Your task to perform on an android device: Do I have any events this weekend? Image 0: 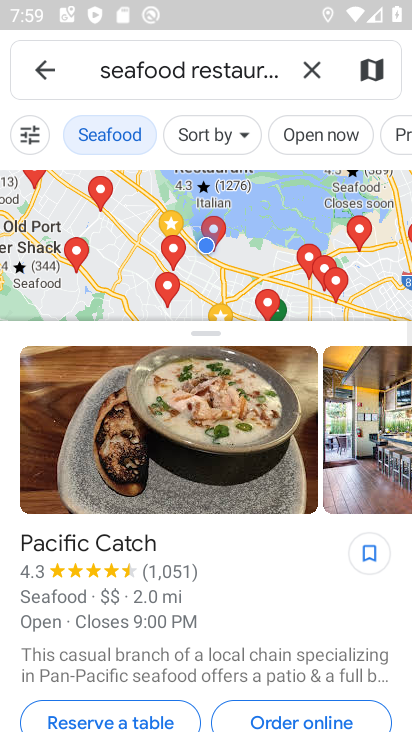
Step 0: press home button
Your task to perform on an android device: Do I have any events this weekend? Image 1: 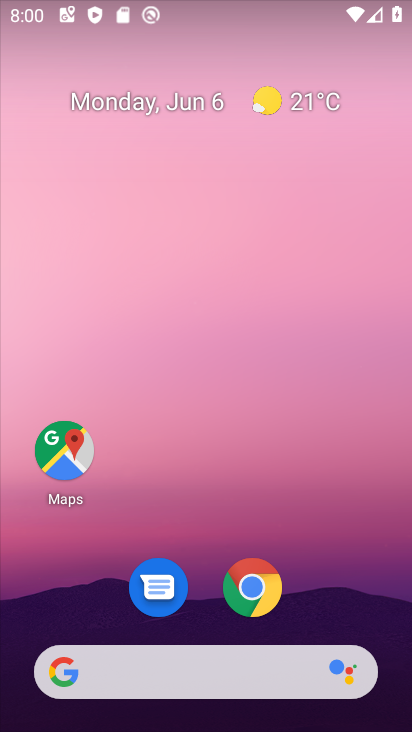
Step 1: drag from (255, 715) to (187, 84)
Your task to perform on an android device: Do I have any events this weekend? Image 2: 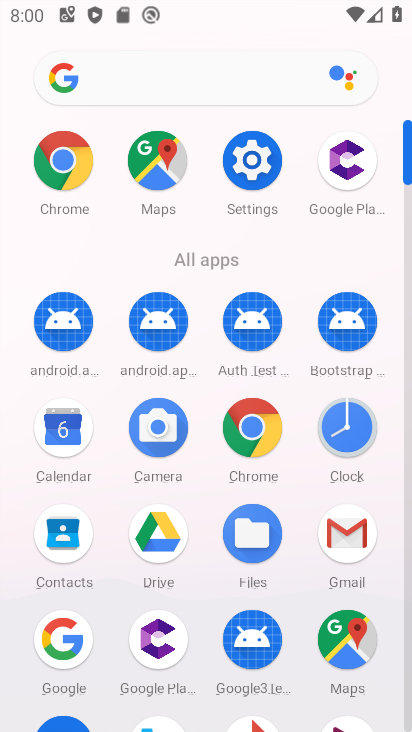
Step 2: click (87, 433)
Your task to perform on an android device: Do I have any events this weekend? Image 3: 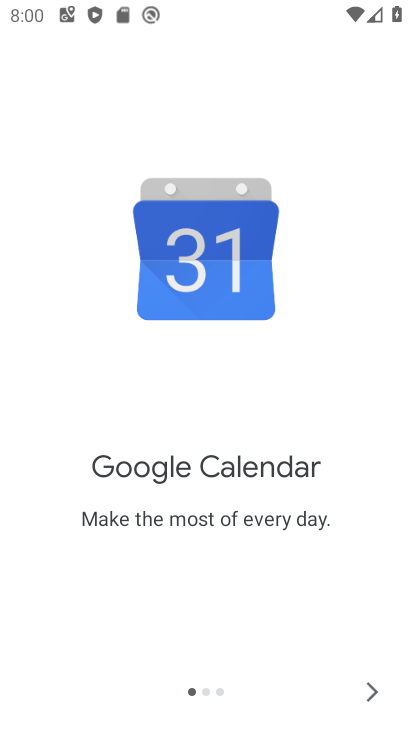
Step 3: click (372, 683)
Your task to perform on an android device: Do I have any events this weekend? Image 4: 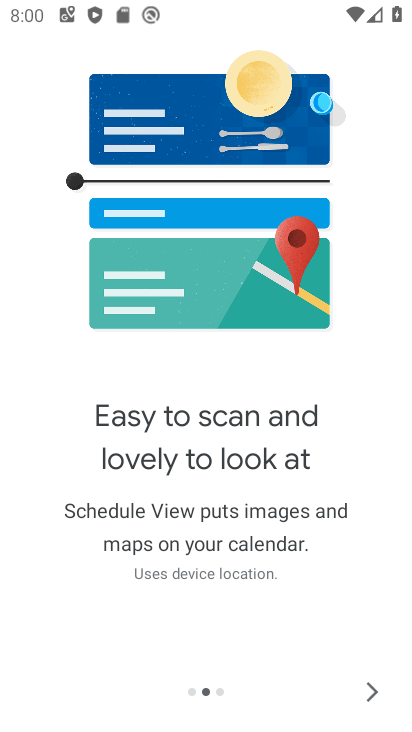
Step 4: click (372, 683)
Your task to perform on an android device: Do I have any events this weekend? Image 5: 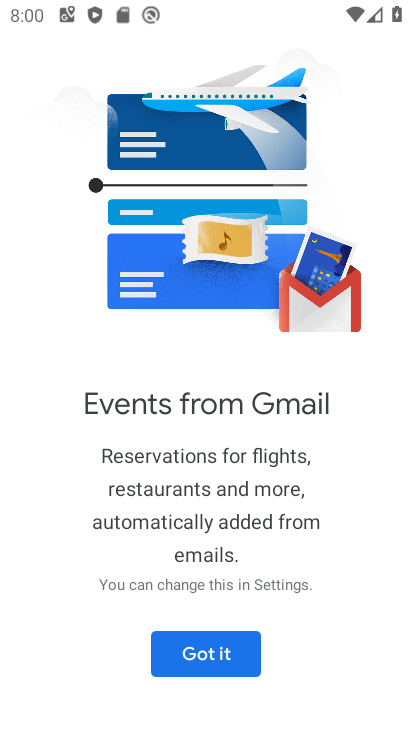
Step 5: click (209, 658)
Your task to perform on an android device: Do I have any events this weekend? Image 6: 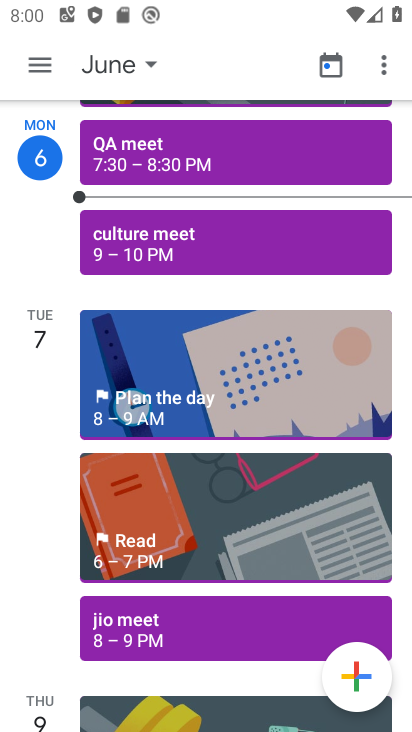
Step 6: click (104, 60)
Your task to perform on an android device: Do I have any events this weekend? Image 7: 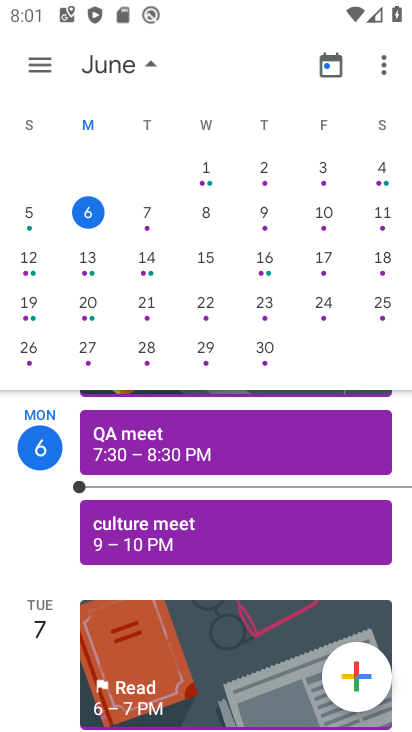
Step 7: click (392, 214)
Your task to perform on an android device: Do I have any events this weekend? Image 8: 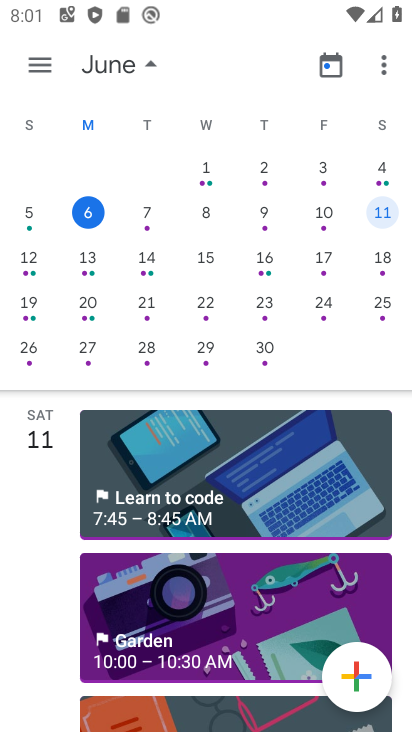
Step 8: task complete